Your task to perform on an android device: open app "Microsoft Excel" (install if not already installed) and enter user name: "kidnappers@icloud.com" and password: "Bessemerizes" Image 0: 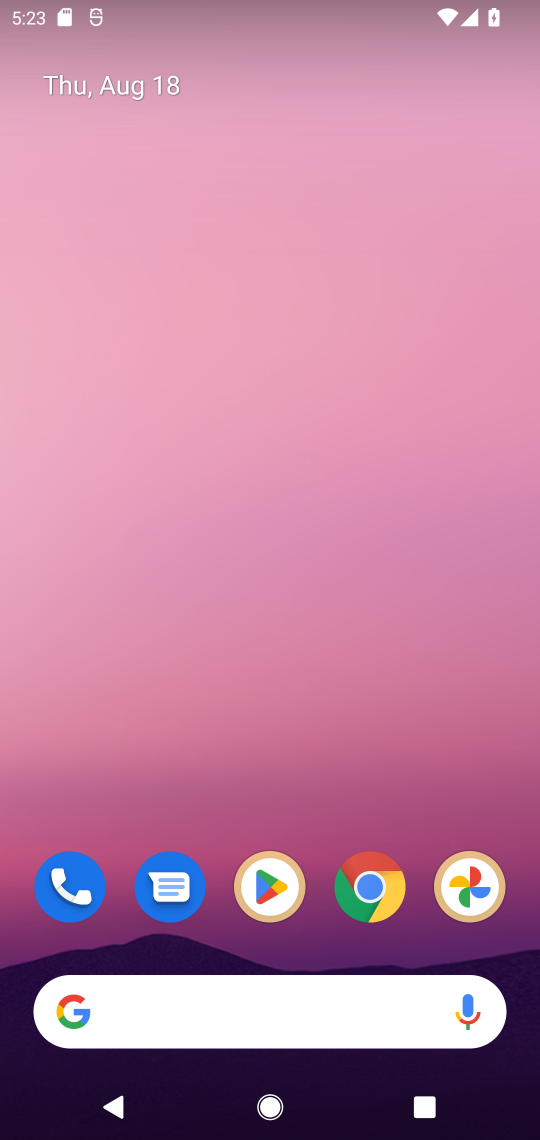
Step 0: click (269, 880)
Your task to perform on an android device: open app "Microsoft Excel" (install if not already installed) and enter user name: "kidnappers@icloud.com" and password: "Bessemerizes" Image 1: 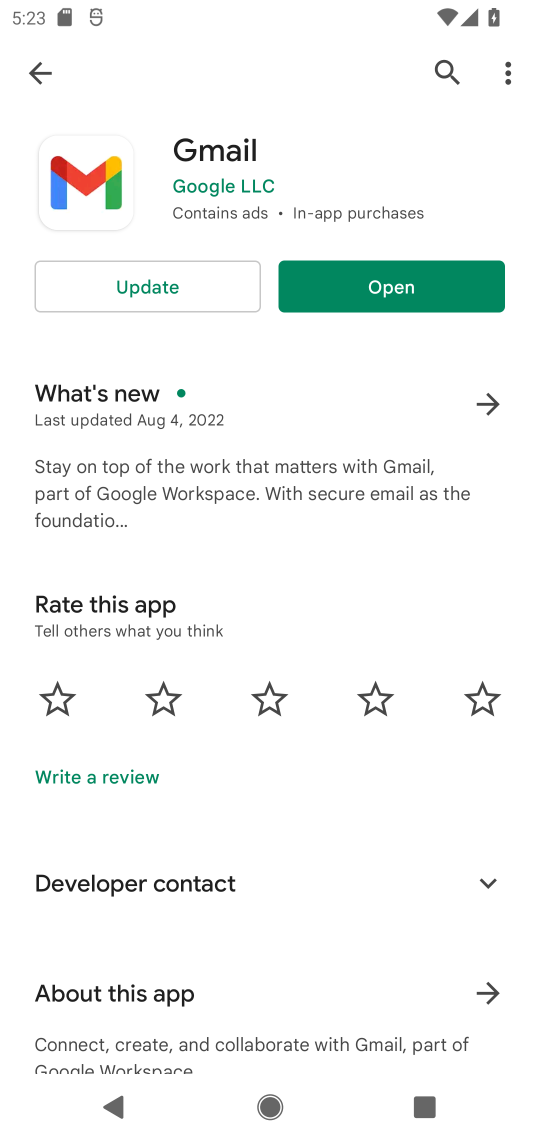
Step 1: click (441, 67)
Your task to perform on an android device: open app "Microsoft Excel" (install if not already installed) and enter user name: "kidnappers@icloud.com" and password: "Bessemerizes" Image 2: 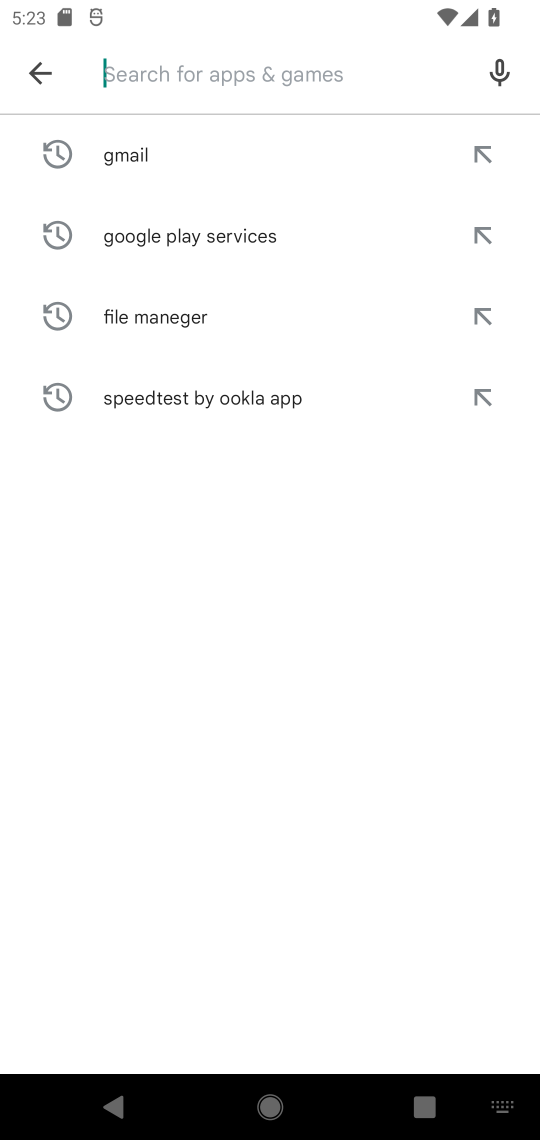
Step 2: type "Microsoft Excel"
Your task to perform on an android device: open app "Microsoft Excel" (install if not already installed) and enter user name: "kidnappers@icloud.com" and password: "Bessemerizes" Image 3: 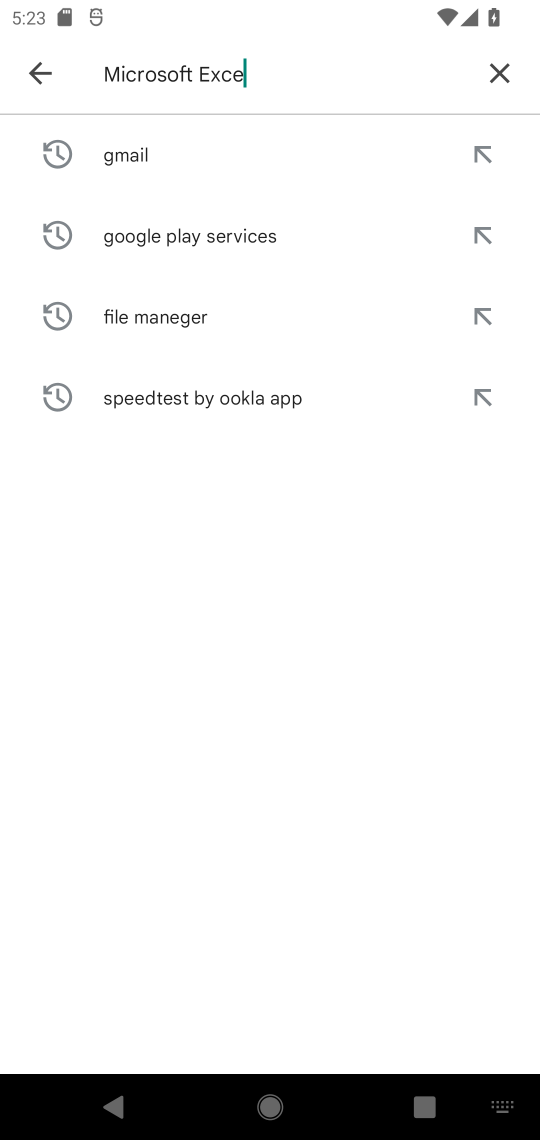
Step 3: type ""
Your task to perform on an android device: open app "Microsoft Excel" (install if not already installed) and enter user name: "kidnappers@icloud.com" and password: "Bessemerizes" Image 4: 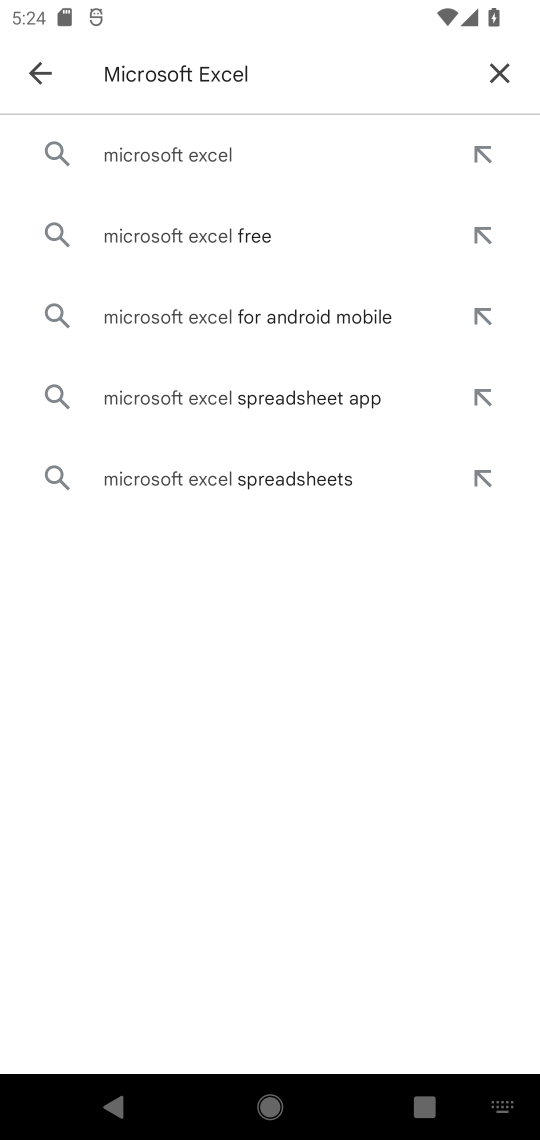
Step 4: click (172, 156)
Your task to perform on an android device: open app "Microsoft Excel" (install if not already installed) and enter user name: "kidnappers@icloud.com" and password: "Bessemerizes" Image 5: 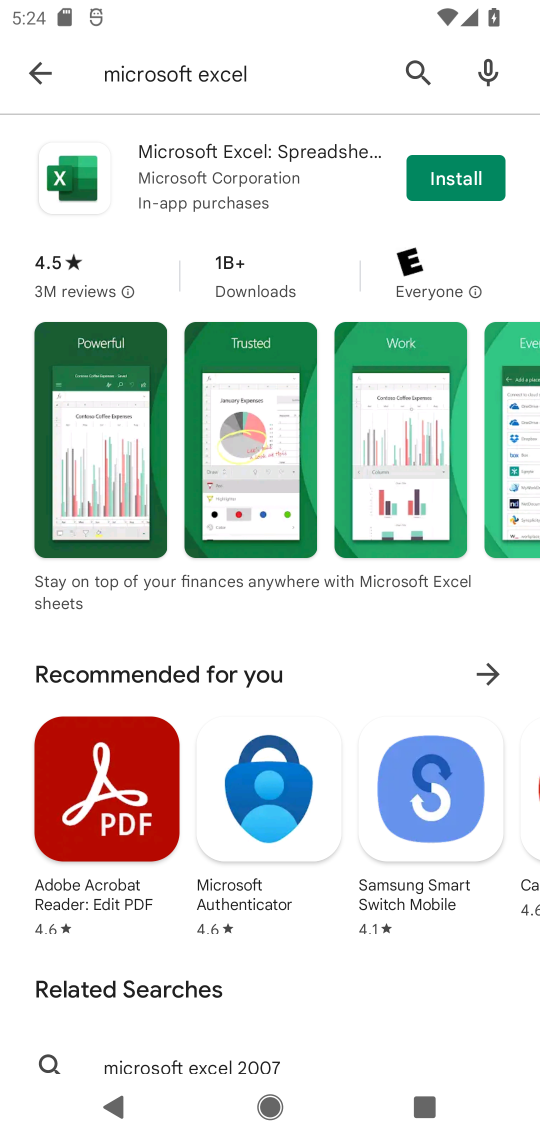
Step 5: click (462, 175)
Your task to perform on an android device: open app "Microsoft Excel" (install if not already installed) and enter user name: "kidnappers@icloud.com" and password: "Bessemerizes" Image 6: 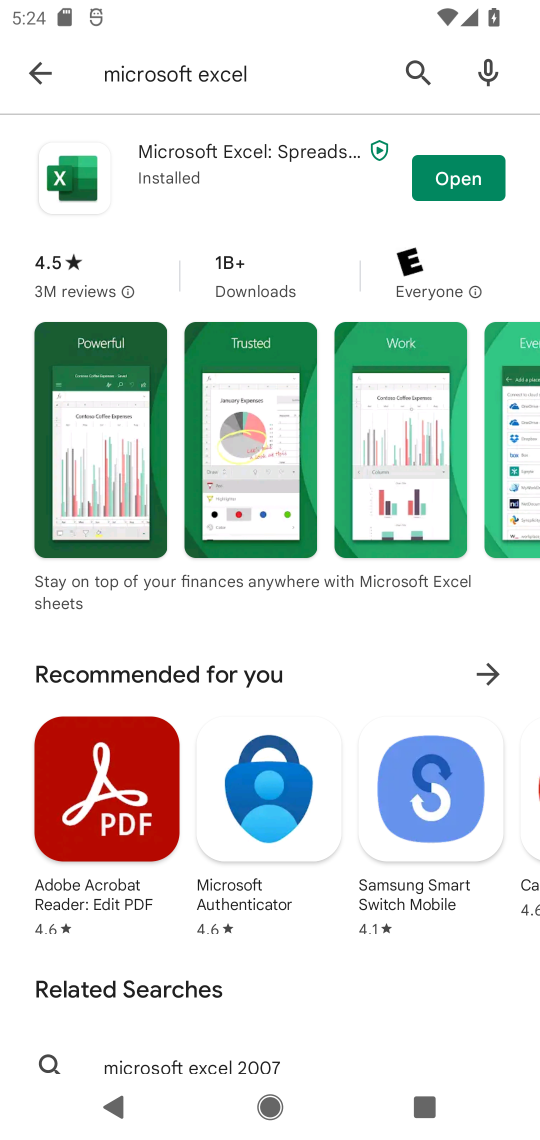
Step 6: click (464, 176)
Your task to perform on an android device: open app "Microsoft Excel" (install if not already installed) and enter user name: "kidnappers@icloud.com" and password: "Bessemerizes" Image 7: 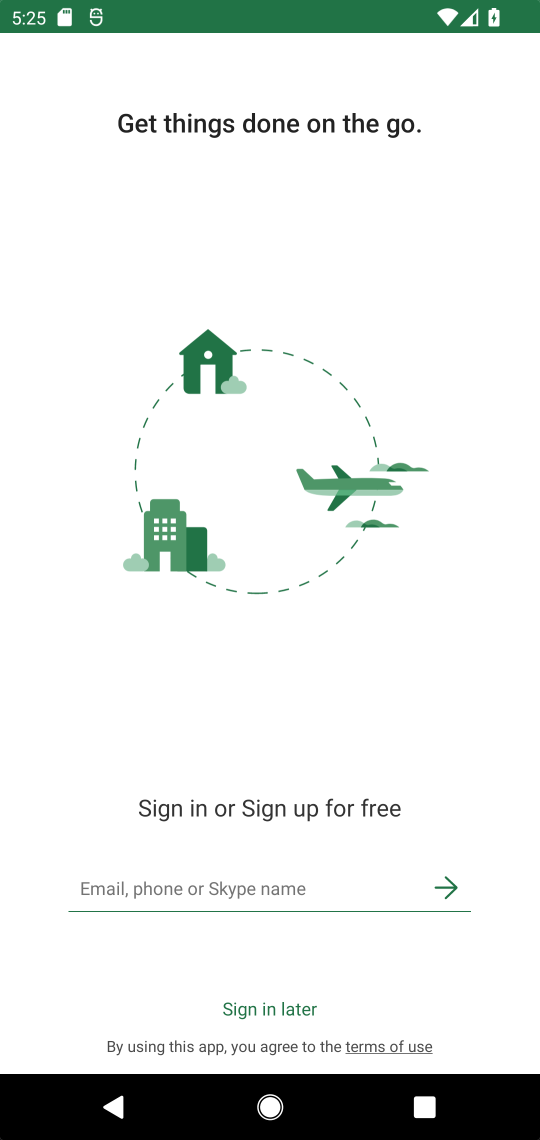
Step 7: click (234, 883)
Your task to perform on an android device: open app "Microsoft Excel" (install if not already installed) and enter user name: "kidnappers@icloud.com" and password: "Bessemerizes" Image 8: 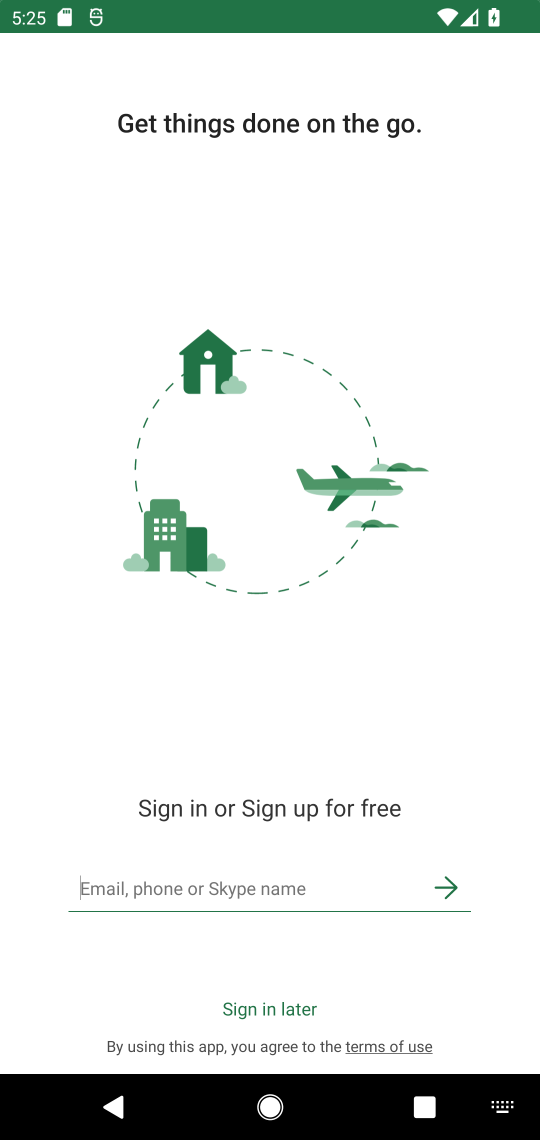
Step 8: type "kidnappers@icloud.com"
Your task to perform on an android device: open app "Microsoft Excel" (install if not already installed) and enter user name: "kidnappers@icloud.com" and password: "Bessemerizes" Image 9: 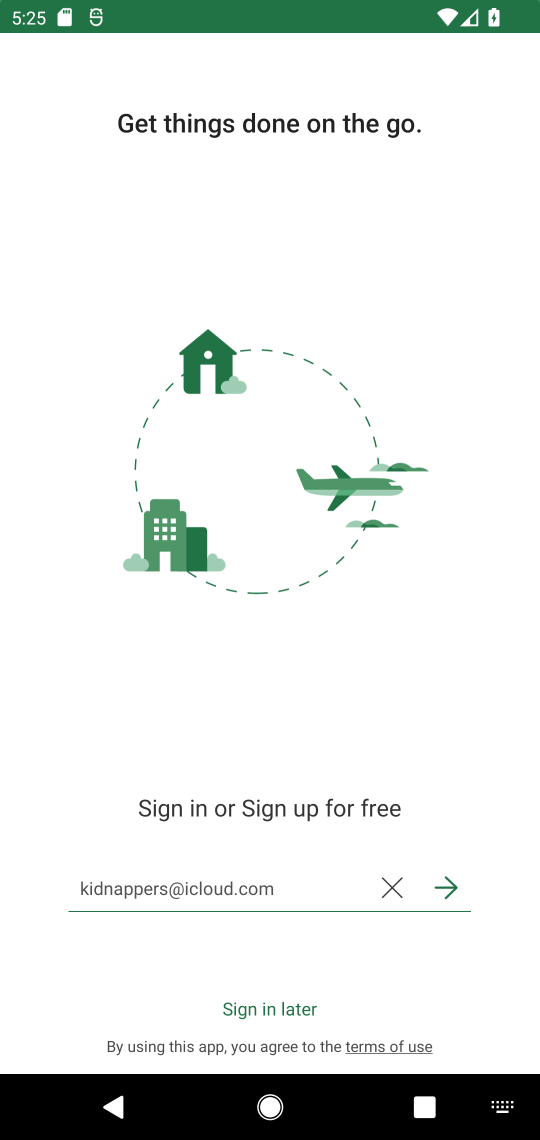
Step 9: click (448, 882)
Your task to perform on an android device: open app "Microsoft Excel" (install if not already installed) and enter user name: "kidnappers@icloud.com" and password: "Bessemerizes" Image 10: 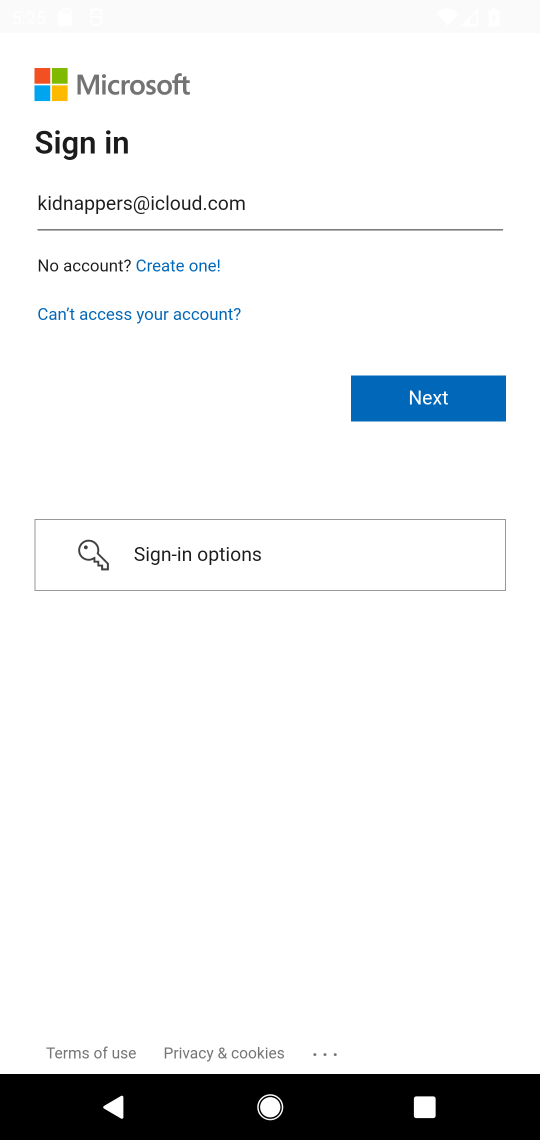
Step 10: click (401, 400)
Your task to perform on an android device: open app "Microsoft Excel" (install if not already installed) and enter user name: "kidnappers@icloud.com" and password: "Bessemerizes" Image 11: 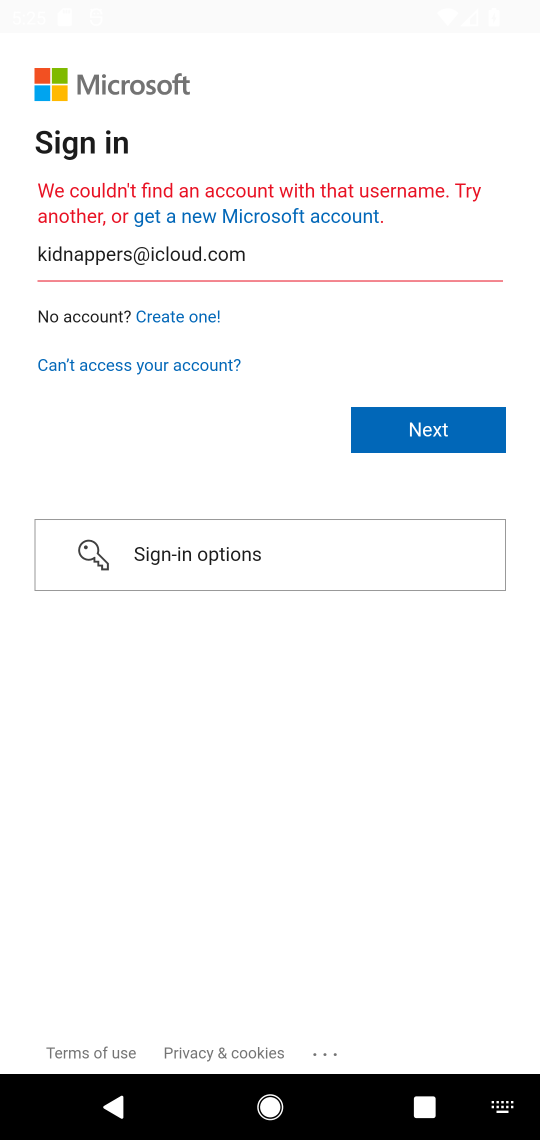
Step 11: click (199, 398)
Your task to perform on an android device: open app "Microsoft Excel" (install if not already installed) and enter user name: "kidnappers@icloud.com" and password: "Bessemerizes" Image 12: 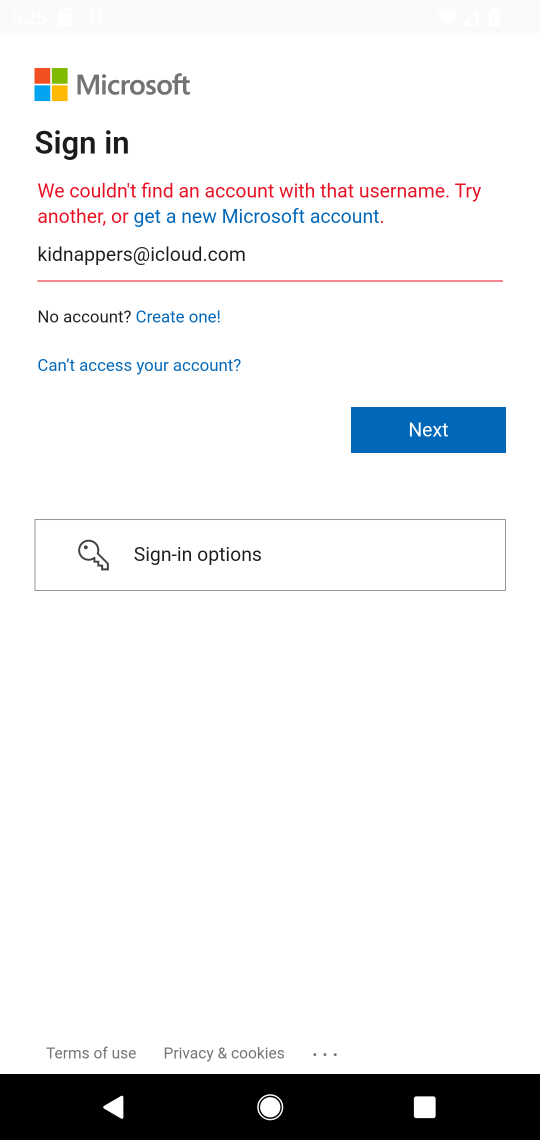
Step 12: task complete